Your task to perform on an android device: change timer sound Image 0: 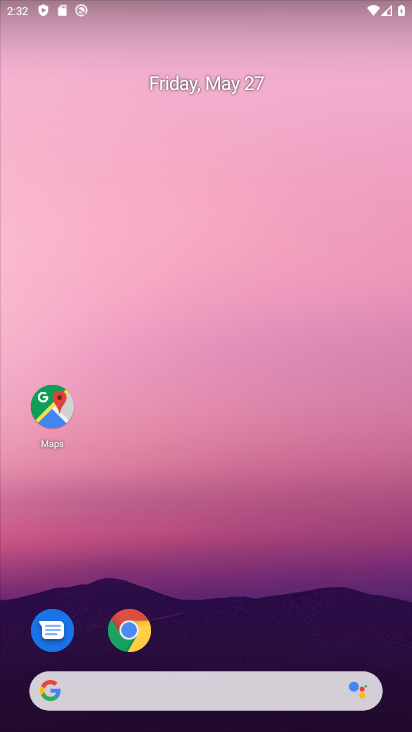
Step 0: drag from (233, 664) to (229, 137)
Your task to perform on an android device: change timer sound Image 1: 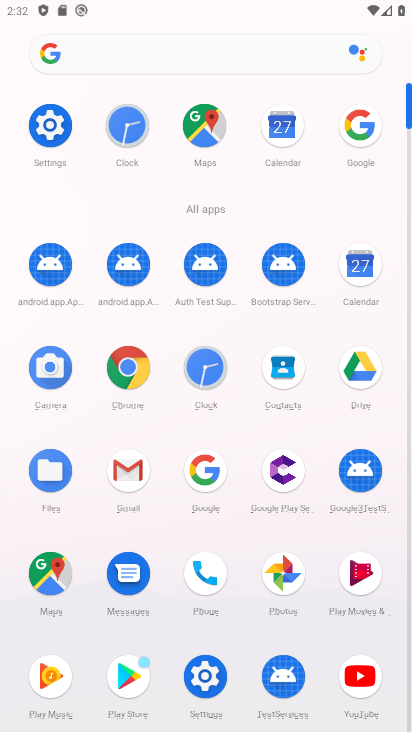
Step 1: click (118, 141)
Your task to perform on an android device: change timer sound Image 2: 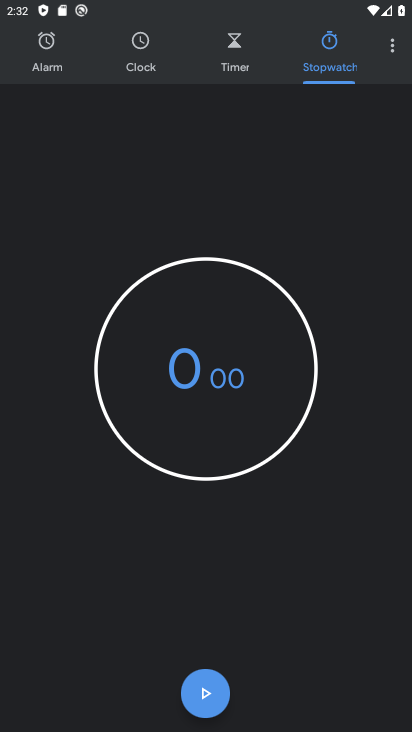
Step 2: click (398, 50)
Your task to perform on an android device: change timer sound Image 3: 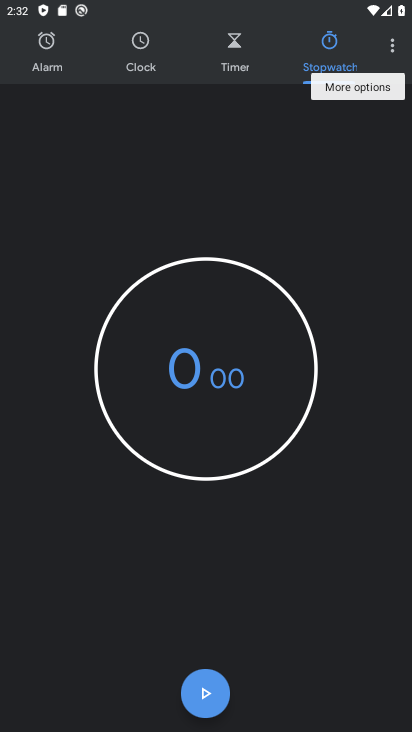
Step 3: click (350, 80)
Your task to perform on an android device: change timer sound Image 4: 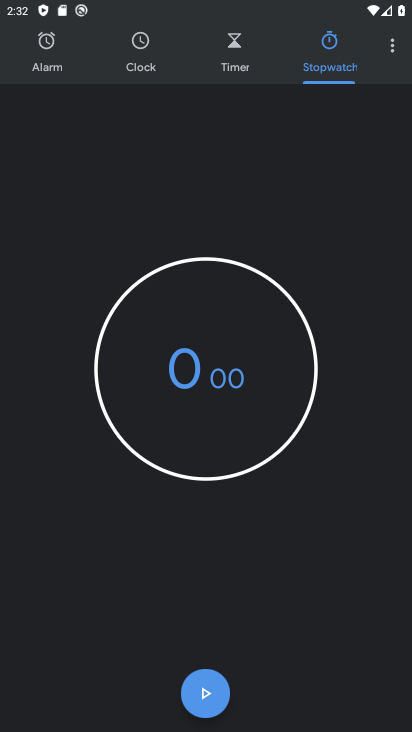
Step 4: click (387, 54)
Your task to perform on an android device: change timer sound Image 5: 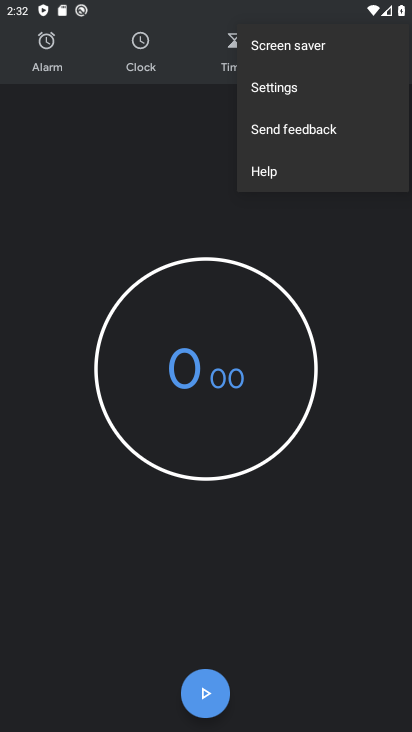
Step 5: click (287, 85)
Your task to perform on an android device: change timer sound Image 6: 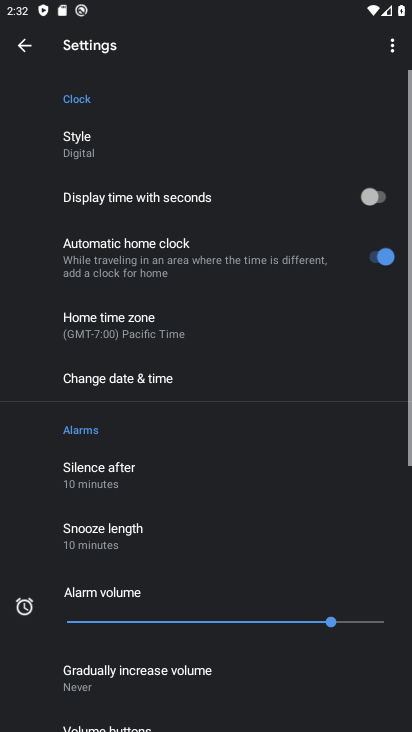
Step 6: drag from (117, 557) to (110, 85)
Your task to perform on an android device: change timer sound Image 7: 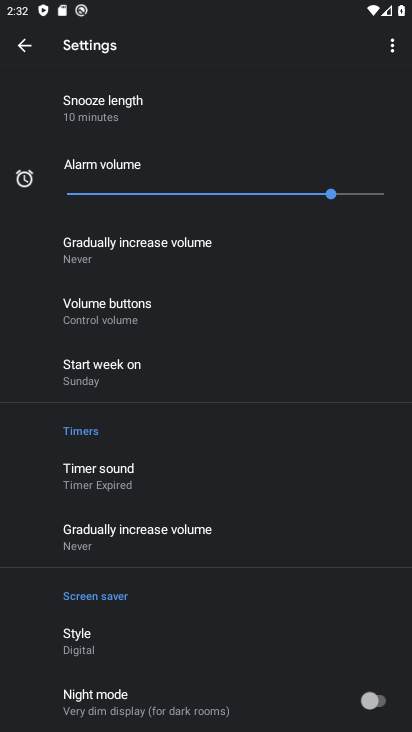
Step 7: click (139, 468)
Your task to perform on an android device: change timer sound Image 8: 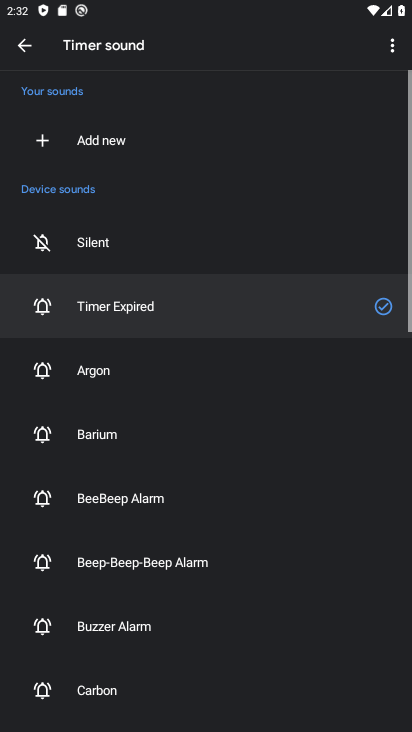
Step 8: click (101, 386)
Your task to perform on an android device: change timer sound Image 9: 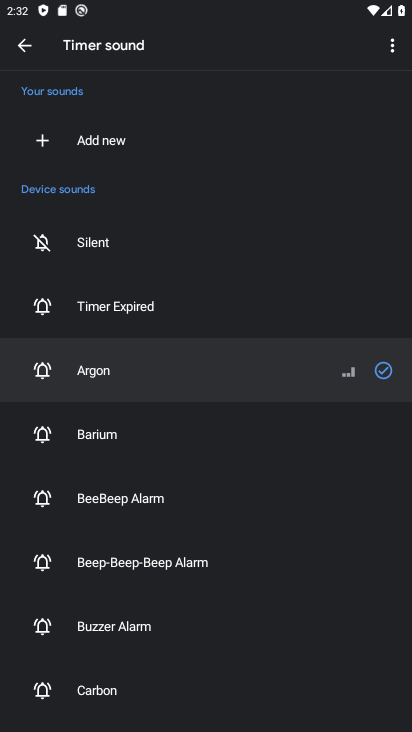
Step 9: task complete